Your task to perform on an android device: turn on translation in the chrome app Image 0: 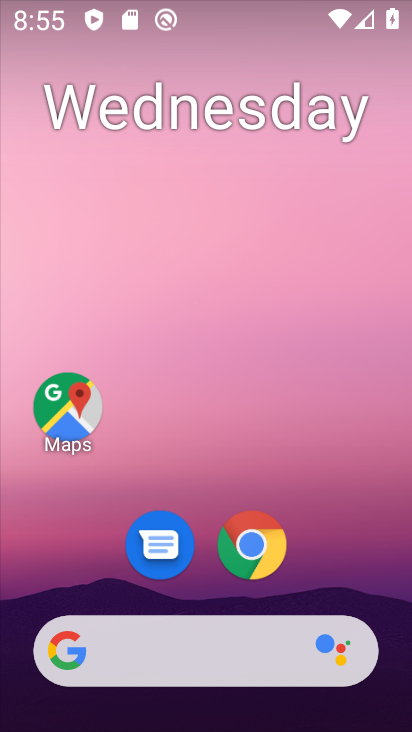
Step 0: click (261, 559)
Your task to perform on an android device: turn on translation in the chrome app Image 1: 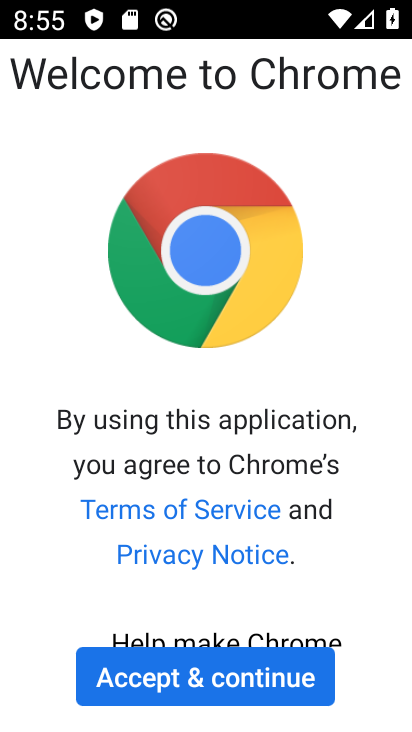
Step 1: click (259, 670)
Your task to perform on an android device: turn on translation in the chrome app Image 2: 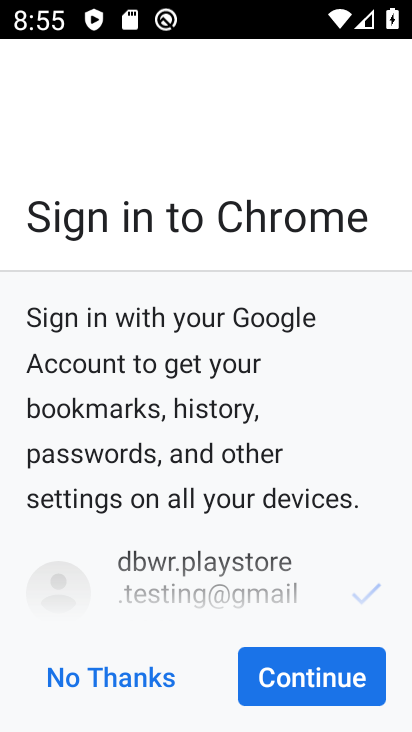
Step 2: click (285, 669)
Your task to perform on an android device: turn on translation in the chrome app Image 3: 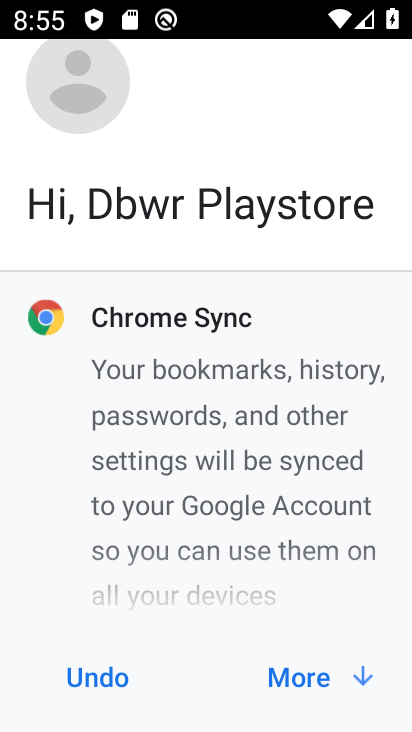
Step 3: click (285, 669)
Your task to perform on an android device: turn on translation in the chrome app Image 4: 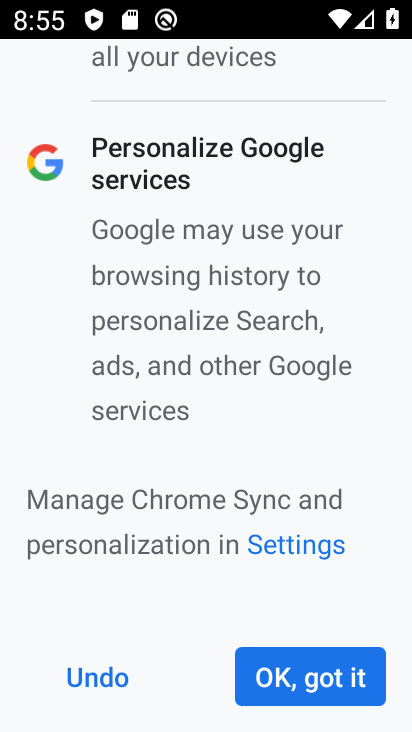
Step 4: click (285, 669)
Your task to perform on an android device: turn on translation in the chrome app Image 5: 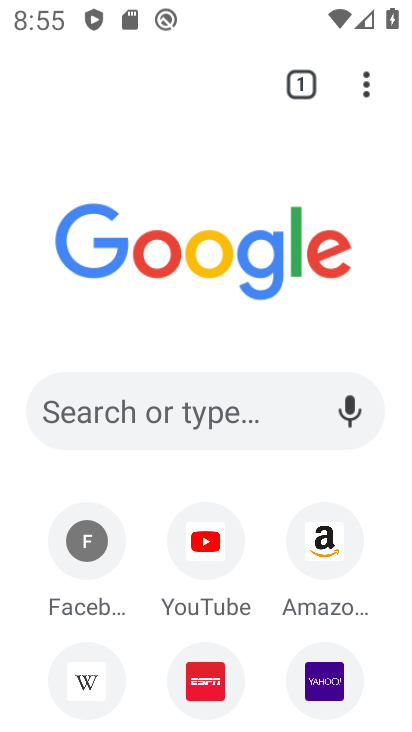
Step 5: click (365, 89)
Your task to perform on an android device: turn on translation in the chrome app Image 6: 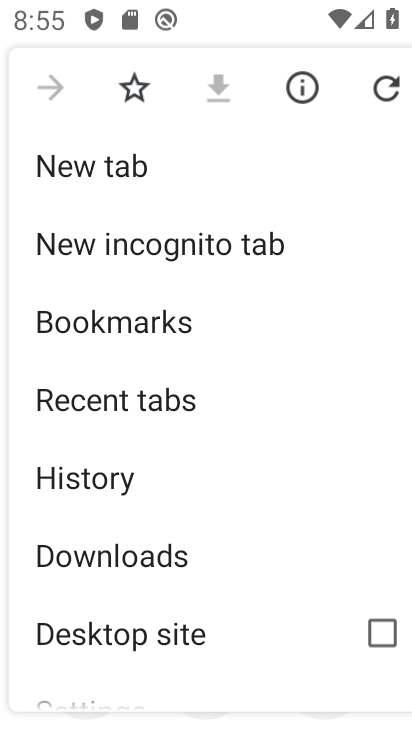
Step 6: drag from (156, 675) to (138, 91)
Your task to perform on an android device: turn on translation in the chrome app Image 7: 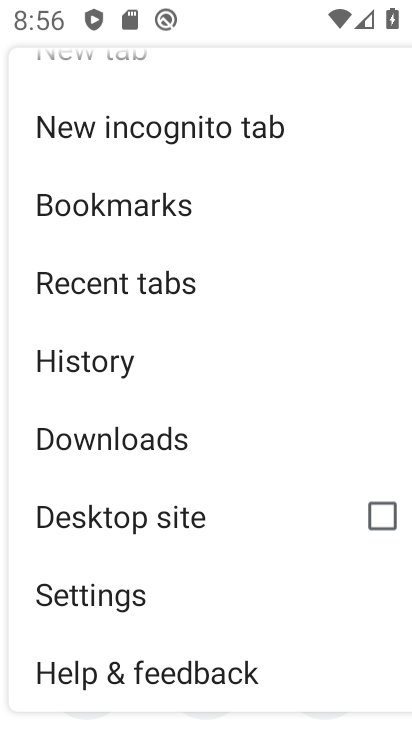
Step 7: click (132, 603)
Your task to perform on an android device: turn on translation in the chrome app Image 8: 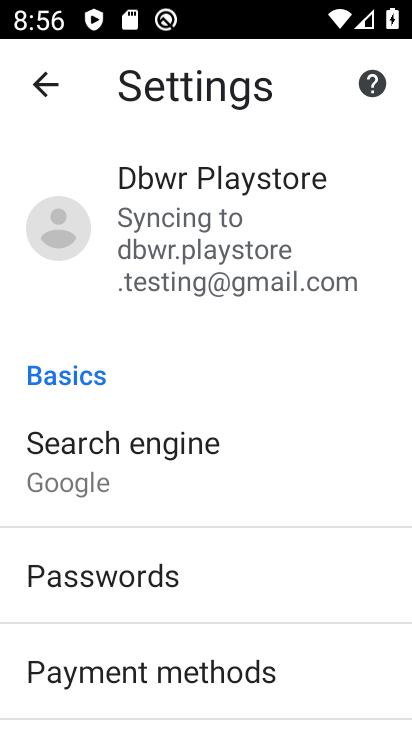
Step 8: drag from (159, 622) to (180, 171)
Your task to perform on an android device: turn on translation in the chrome app Image 9: 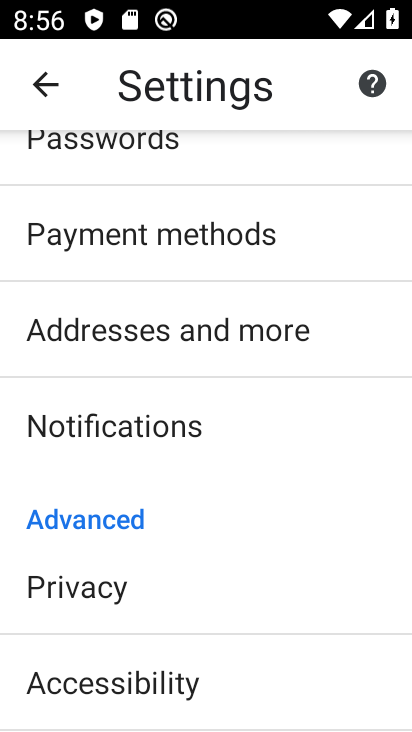
Step 9: drag from (187, 585) to (212, 202)
Your task to perform on an android device: turn on translation in the chrome app Image 10: 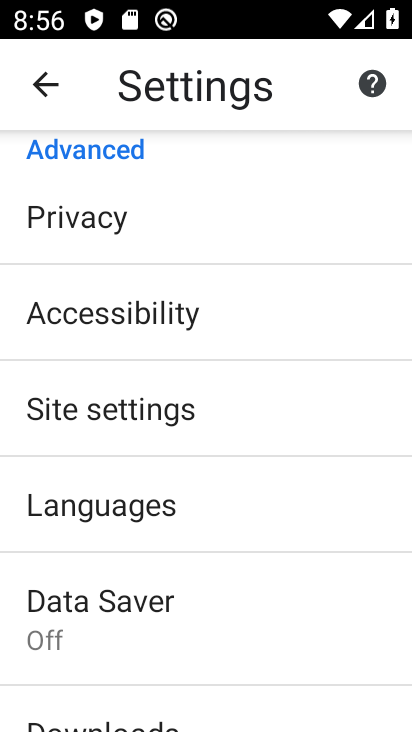
Step 10: click (183, 516)
Your task to perform on an android device: turn on translation in the chrome app Image 11: 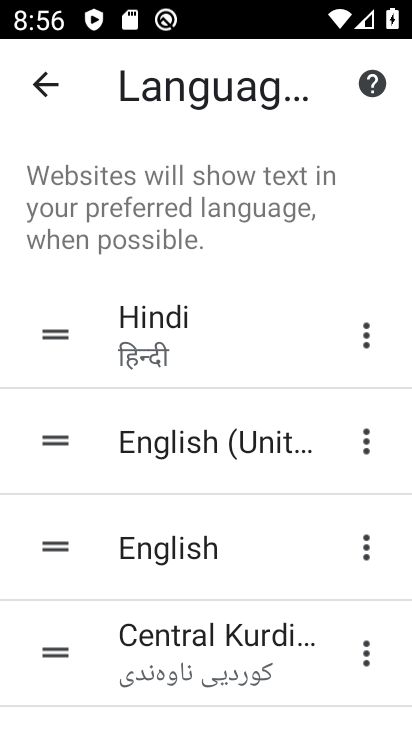
Step 11: task complete